Your task to perform on an android device: Go to Google Image 0: 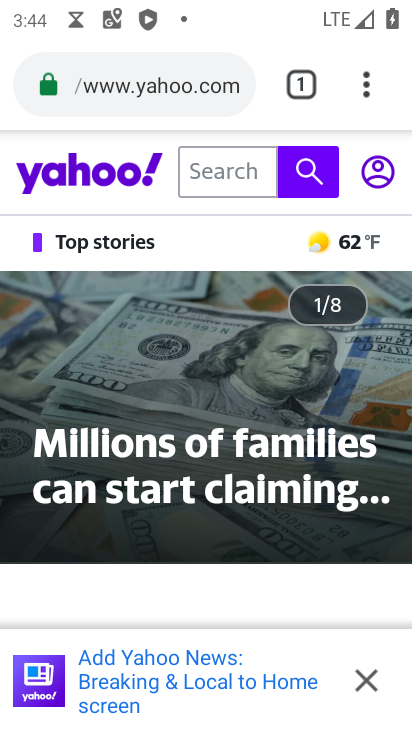
Step 0: press home button
Your task to perform on an android device: Go to Google Image 1: 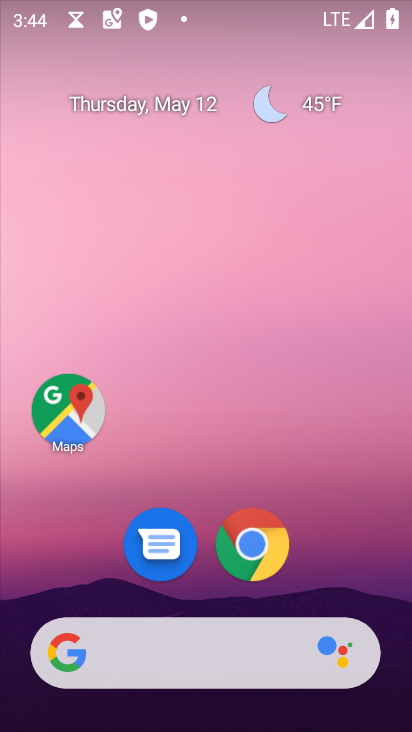
Step 1: drag from (342, 581) to (330, 12)
Your task to perform on an android device: Go to Google Image 2: 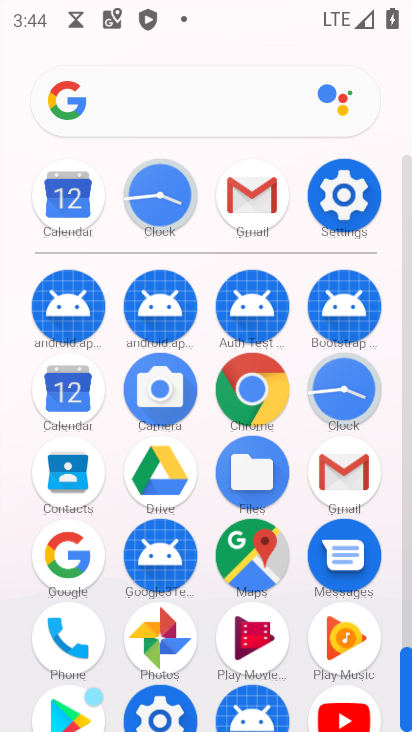
Step 2: click (70, 565)
Your task to perform on an android device: Go to Google Image 3: 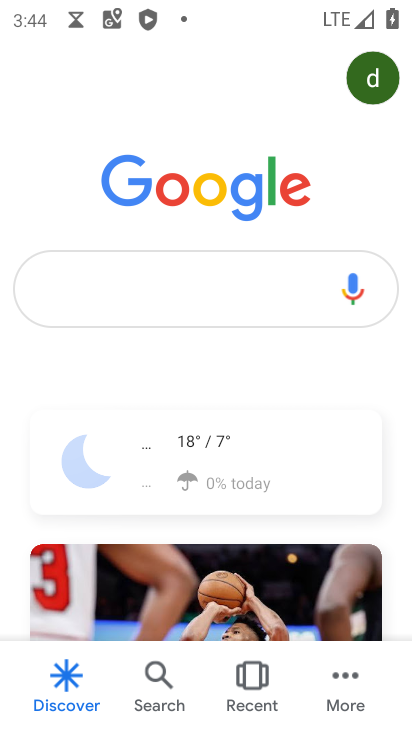
Step 3: task complete